Your task to perform on an android device: toggle javascript in the chrome app Image 0: 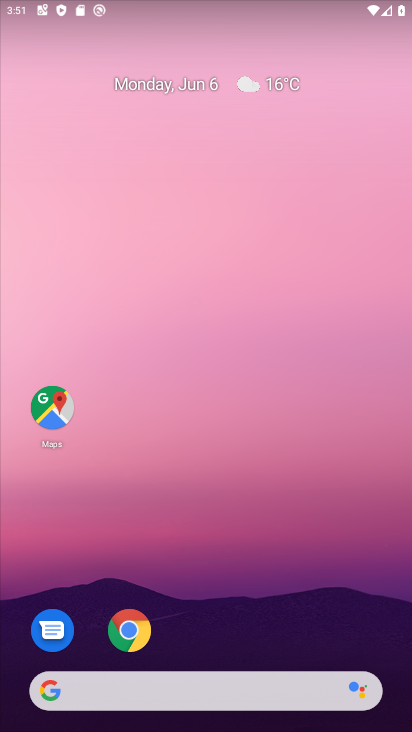
Step 0: click (126, 636)
Your task to perform on an android device: toggle javascript in the chrome app Image 1: 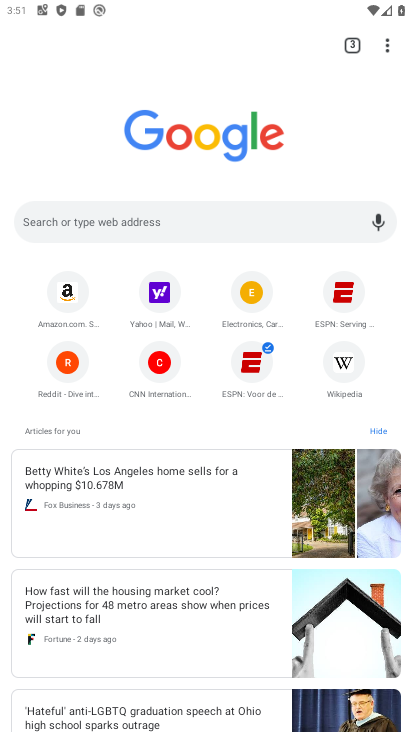
Step 1: drag from (385, 38) to (221, 253)
Your task to perform on an android device: toggle javascript in the chrome app Image 2: 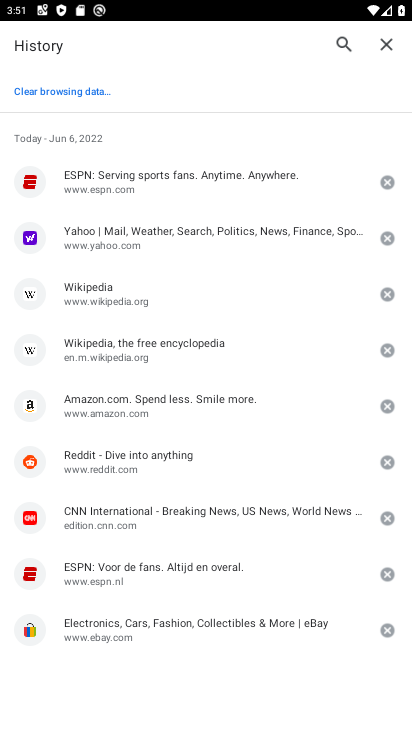
Step 2: click (401, 47)
Your task to perform on an android device: toggle javascript in the chrome app Image 3: 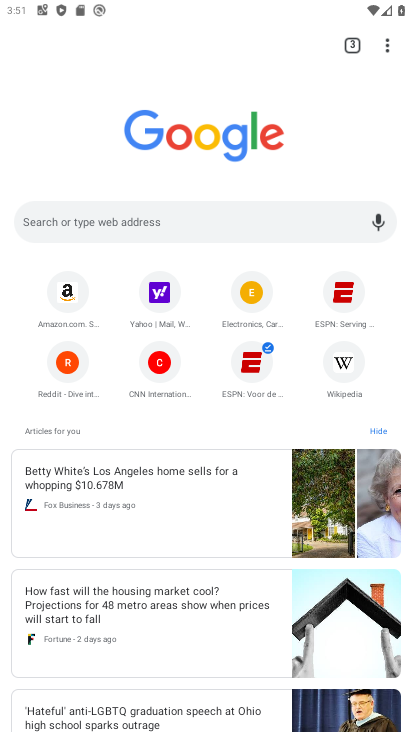
Step 3: drag from (389, 44) to (246, 376)
Your task to perform on an android device: toggle javascript in the chrome app Image 4: 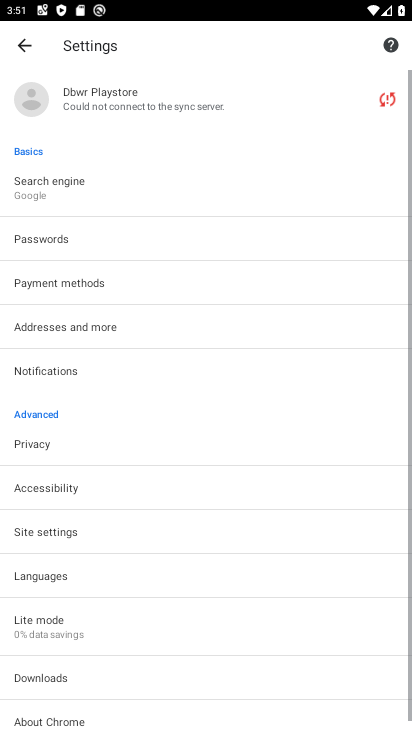
Step 4: drag from (161, 647) to (209, 359)
Your task to perform on an android device: toggle javascript in the chrome app Image 5: 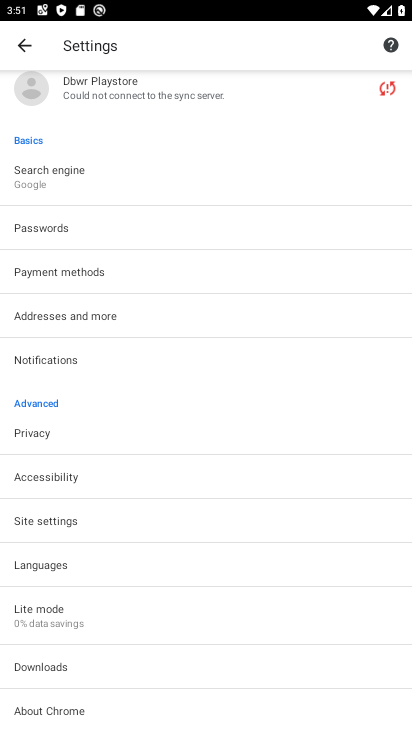
Step 5: click (91, 518)
Your task to perform on an android device: toggle javascript in the chrome app Image 6: 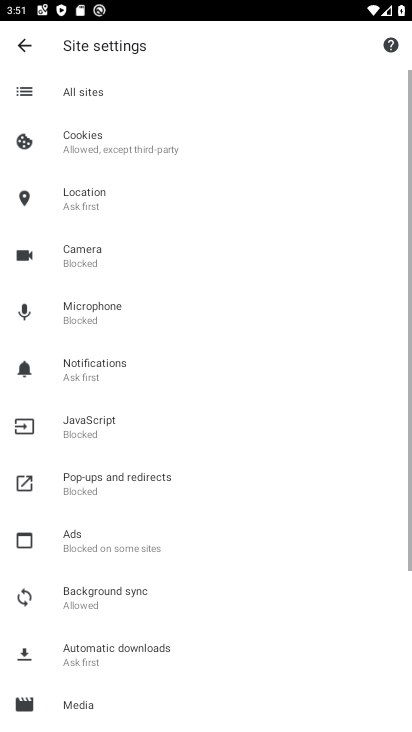
Step 6: click (77, 420)
Your task to perform on an android device: toggle javascript in the chrome app Image 7: 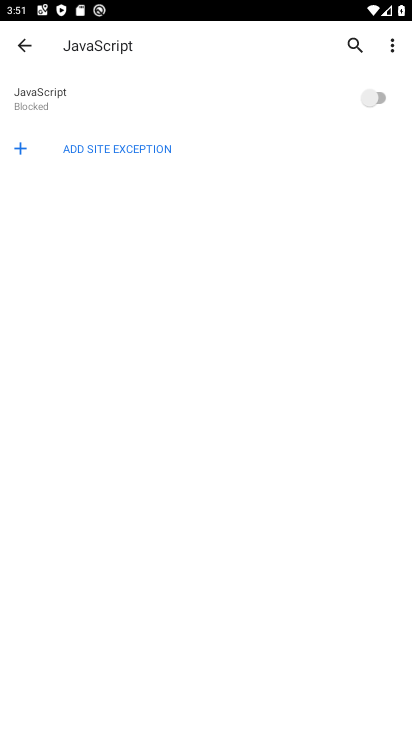
Step 7: click (365, 104)
Your task to perform on an android device: toggle javascript in the chrome app Image 8: 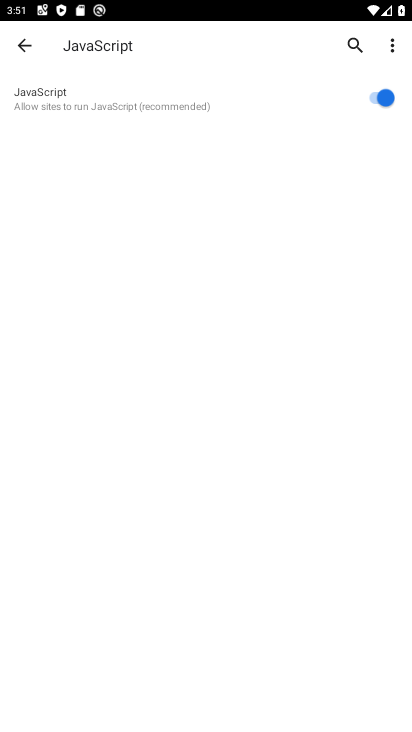
Step 8: task complete